Your task to perform on an android device: turn off airplane mode Image 0: 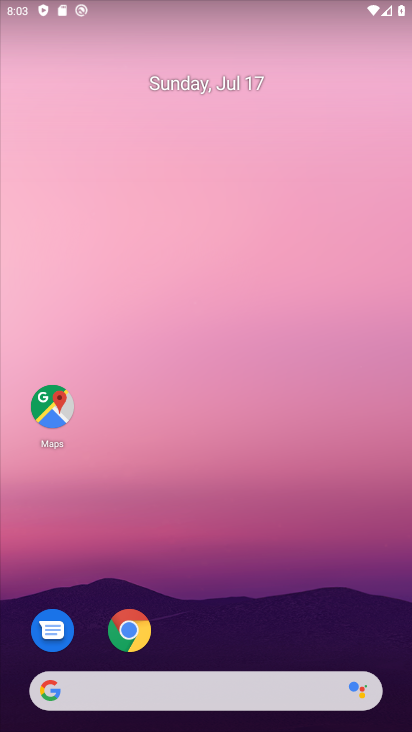
Step 0: drag from (321, 609) to (320, 147)
Your task to perform on an android device: turn off airplane mode Image 1: 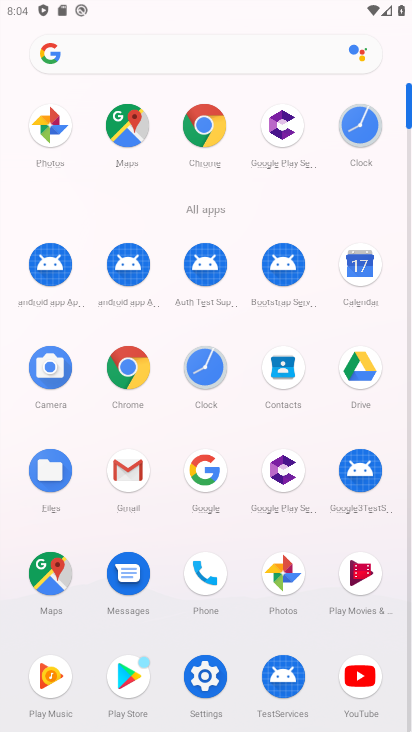
Step 1: click (211, 674)
Your task to perform on an android device: turn off airplane mode Image 2: 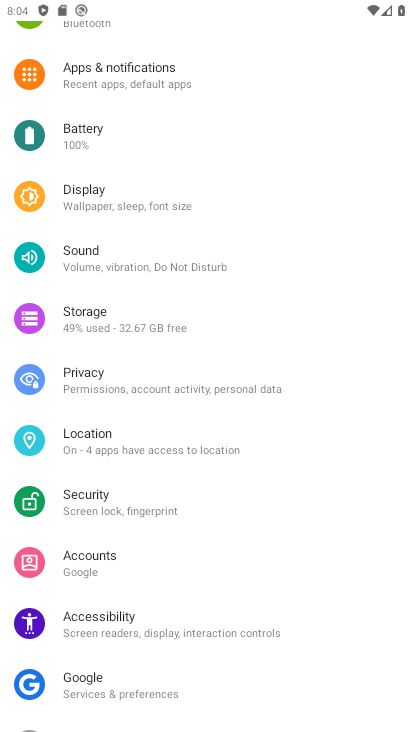
Step 2: drag from (320, 576) to (325, 339)
Your task to perform on an android device: turn off airplane mode Image 3: 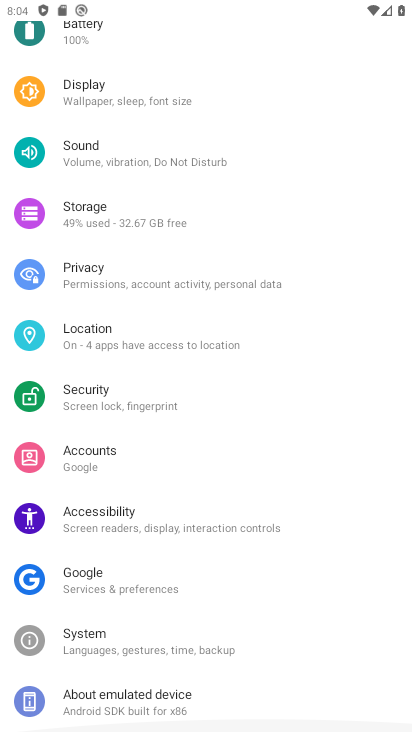
Step 3: drag from (340, 227) to (340, 344)
Your task to perform on an android device: turn off airplane mode Image 4: 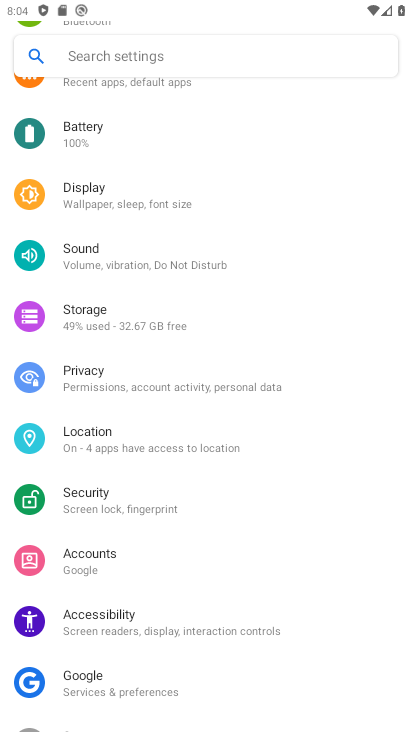
Step 4: drag from (323, 249) to (327, 450)
Your task to perform on an android device: turn off airplane mode Image 5: 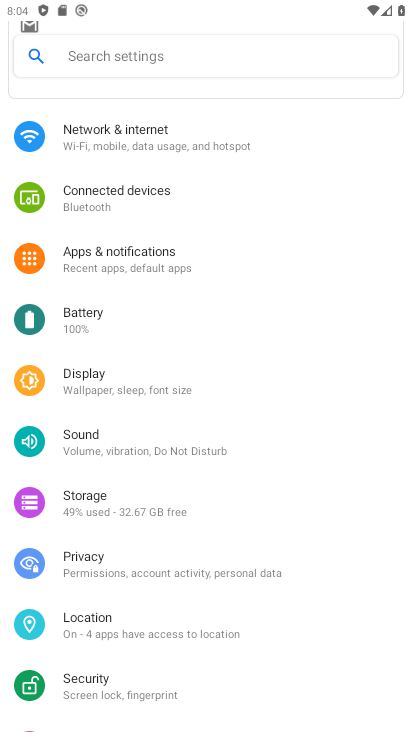
Step 5: drag from (326, 242) to (355, 508)
Your task to perform on an android device: turn off airplane mode Image 6: 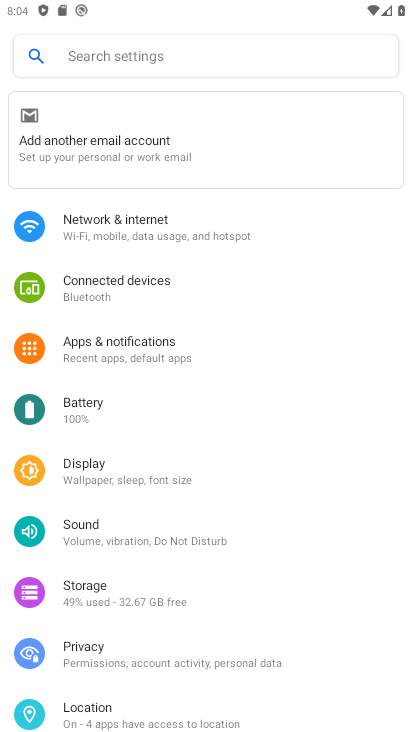
Step 6: click (215, 222)
Your task to perform on an android device: turn off airplane mode Image 7: 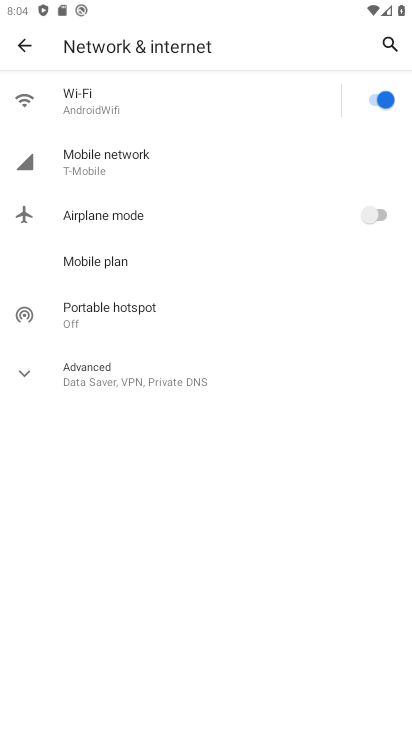
Step 7: task complete